Your task to perform on an android device: toggle airplane mode Image 0: 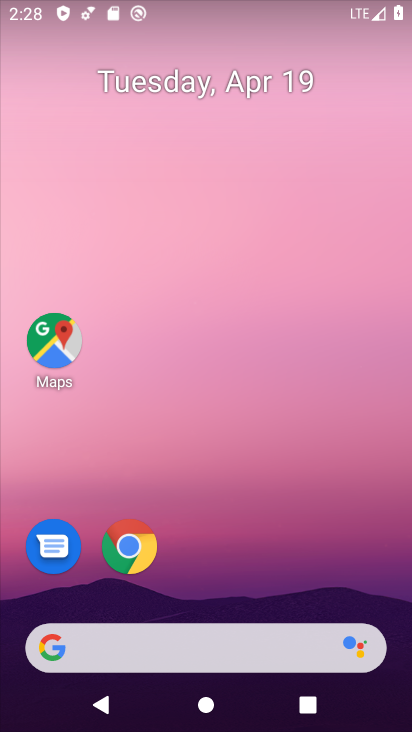
Step 0: drag from (125, 412) to (158, 565)
Your task to perform on an android device: toggle airplane mode Image 1: 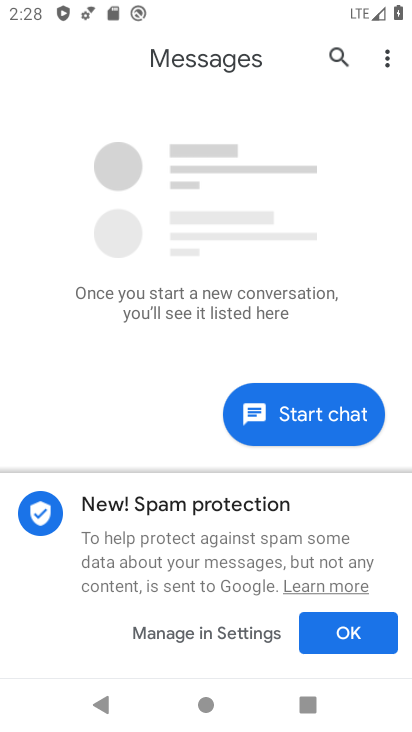
Step 1: drag from (147, 13) to (152, 324)
Your task to perform on an android device: toggle airplane mode Image 2: 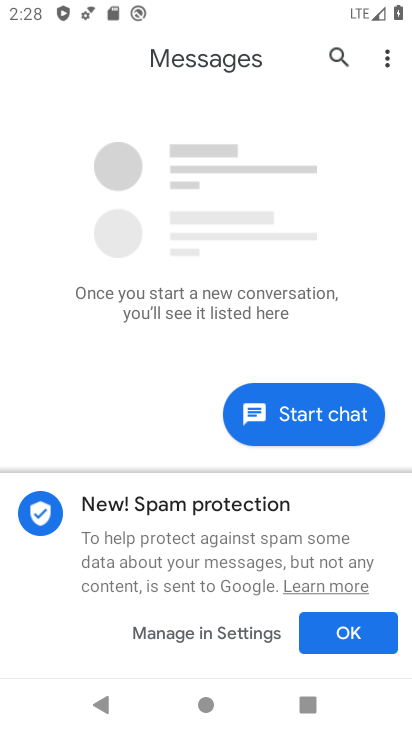
Step 2: drag from (134, 15) to (188, 397)
Your task to perform on an android device: toggle airplane mode Image 3: 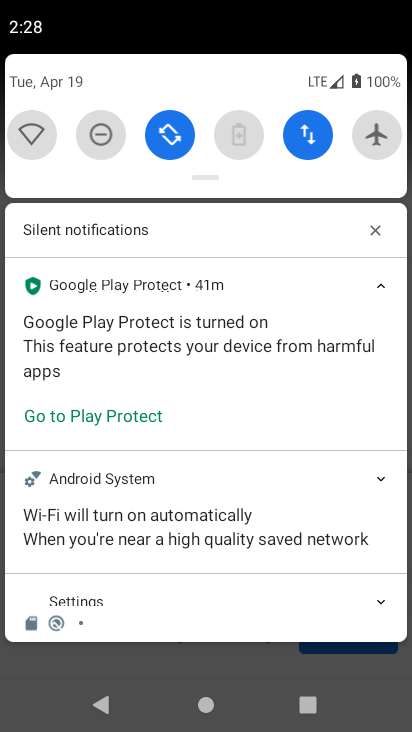
Step 3: click (359, 144)
Your task to perform on an android device: toggle airplane mode Image 4: 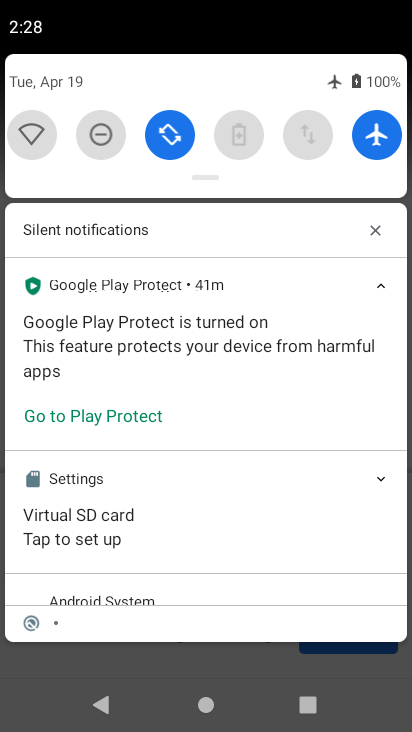
Step 4: task complete